Your task to perform on an android device: turn on priority inbox in the gmail app Image 0: 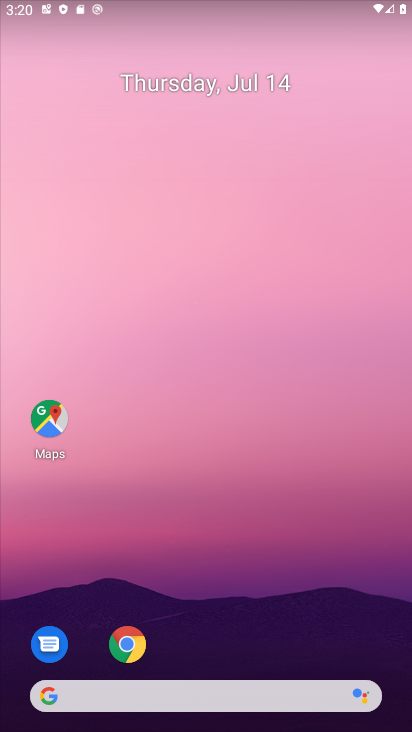
Step 0: drag from (224, 634) to (298, 69)
Your task to perform on an android device: turn on priority inbox in the gmail app Image 1: 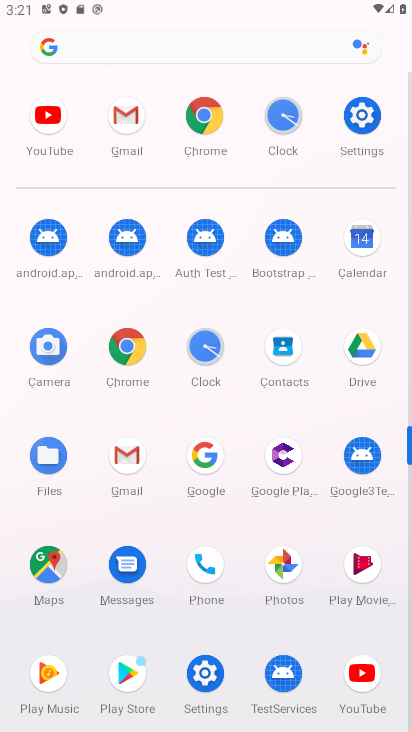
Step 1: click (131, 457)
Your task to perform on an android device: turn on priority inbox in the gmail app Image 2: 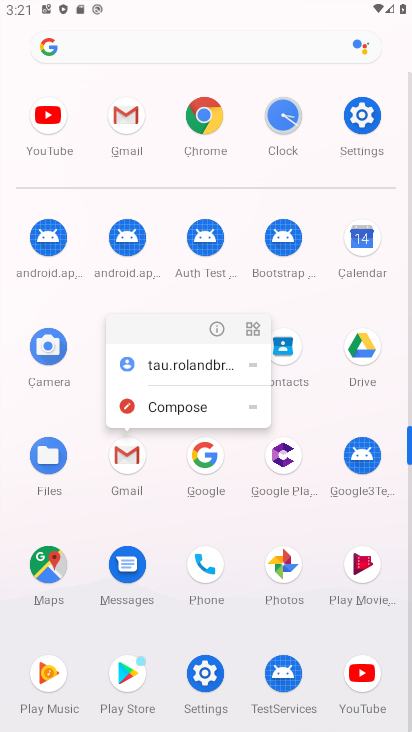
Step 2: click (220, 324)
Your task to perform on an android device: turn on priority inbox in the gmail app Image 3: 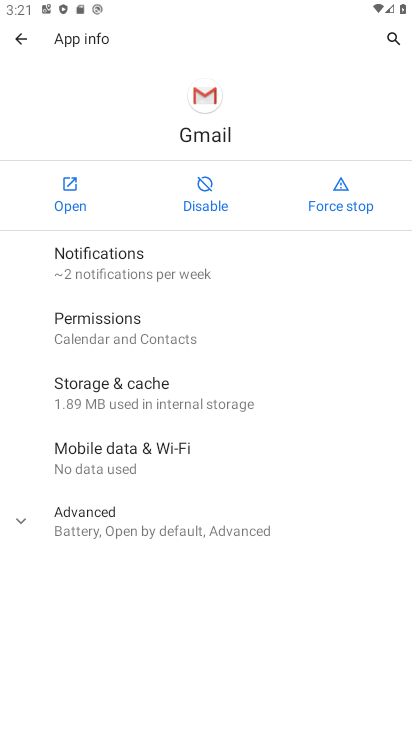
Step 3: drag from (150, 557) to (248, 165)
Your task to perform on an android device: turn on priority inbox in the gmail app Image 4: 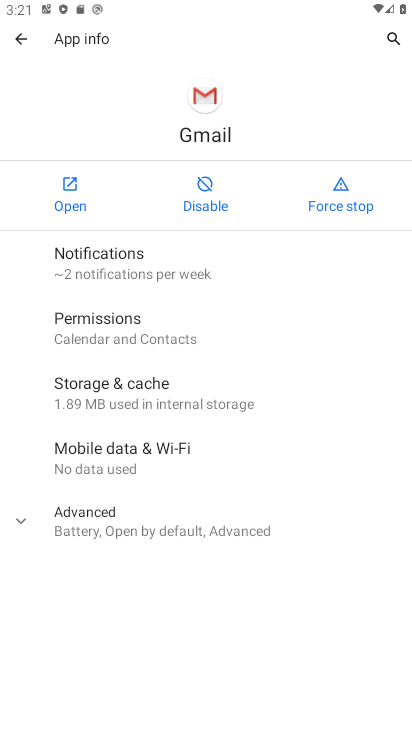
Step 4: click (67, 185)
Your task to perform on an android device: turn on priority inbox in the gmail app Image 5: 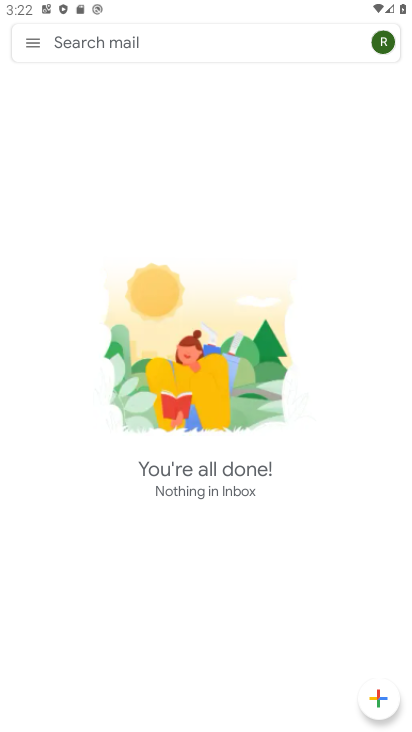
Step 5: drag from (99, 510) to (224, 110)
Your task to perform on an android device: turn on priority inbox in the gmail app Image 6: 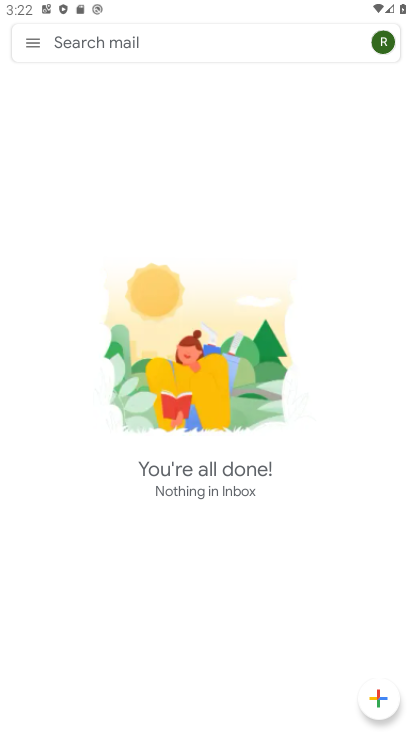
Step 6: click (25, 36)
Your task to perform on an android device: turn on priority inbox in the gmail app Image 7: 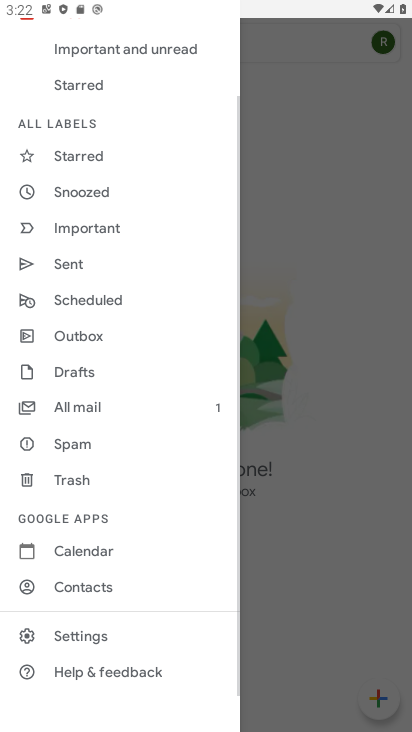
Step 7: click (69, 631)
Your task to perform on an android device: turn on priority inbox in the gmail app Image 8: 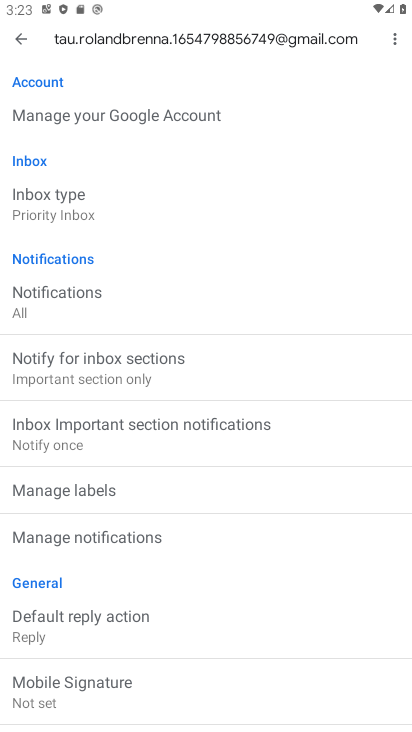
Step 8: click (1, 200)
Your task to perform on an android device: turn on priority inbox in the gmail app Image 9: 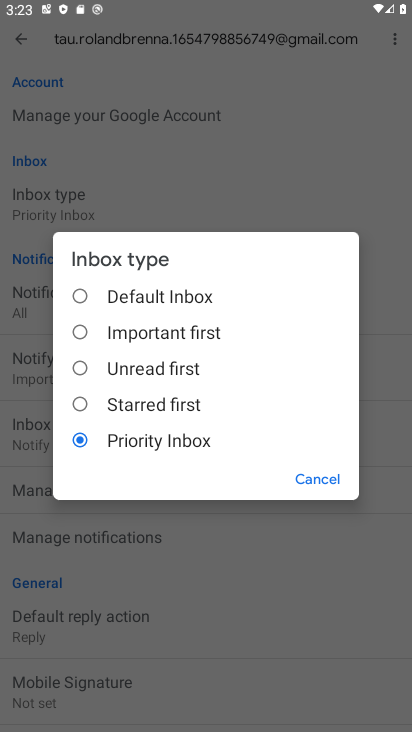
Step 9: task complete